Your task to perform on an android device: Open the calendar app, open the side menu, and click the "Day" option Image 0: 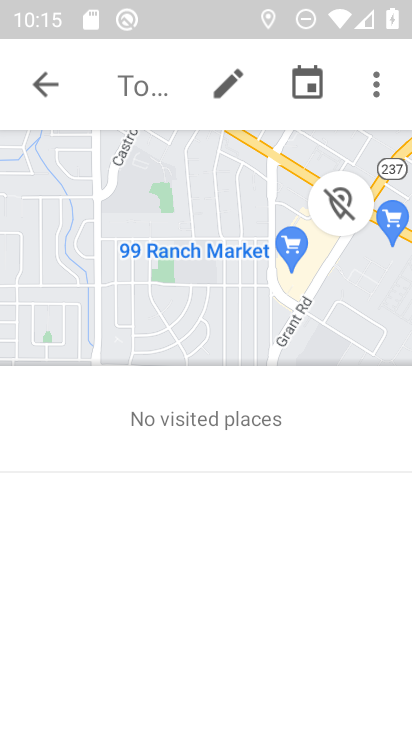
Step 0: press home button
Your task to perform on an android device: Open the calendar app, open the side menu, and click the "Day" option Image 1: 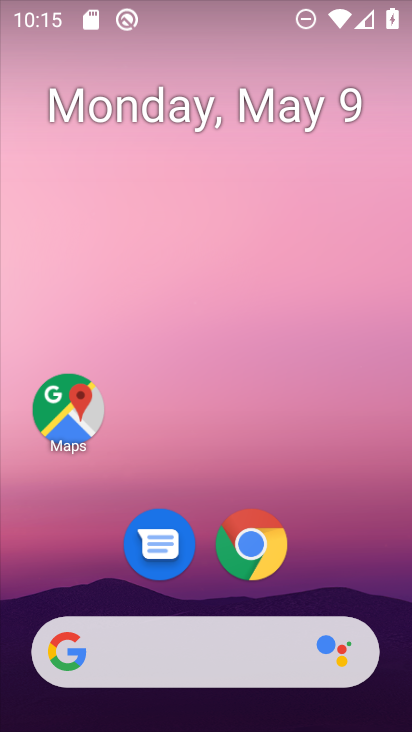
Step 1: drag from (347, 558) to (234, 95)
Your task to perform on an android device: Open the calendar app, open the side menu, and click the "Day" option Image 2: 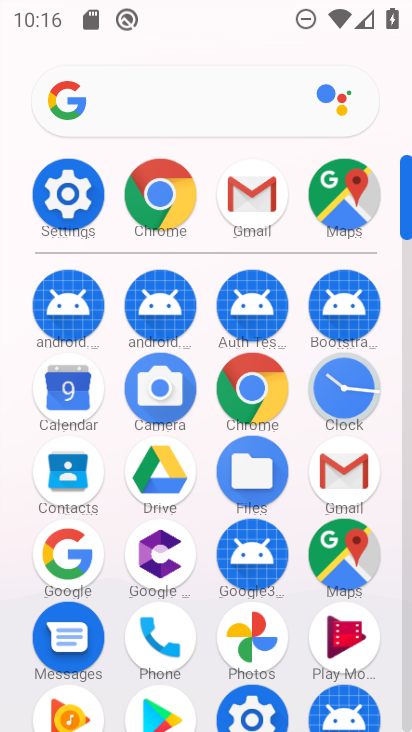
Step 2: click (67, 389)
Your task to perform on an android device: Open the calendar app, open the side menu, and click the "Day" option Image 3: 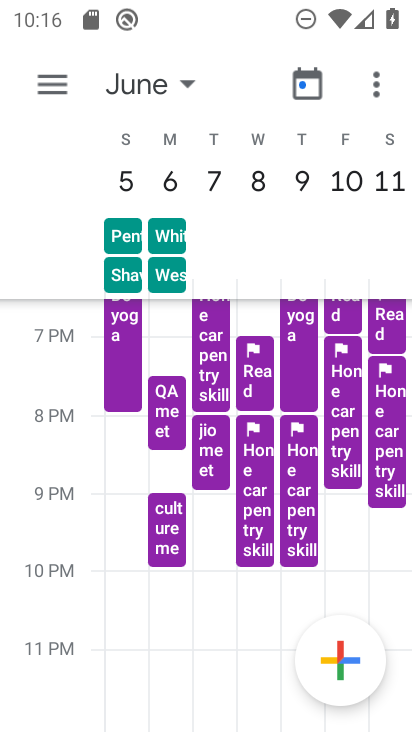
Step 3: click (55, 88)
Your task to perform on an android device: Open the calendar app, open the side menu, and click the "Day" option Image 4: 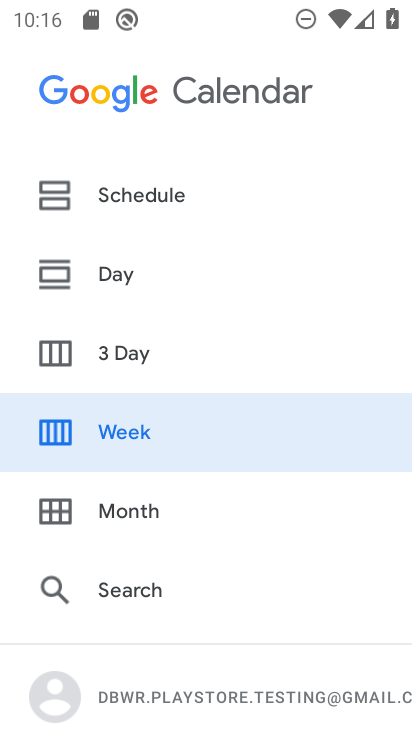
Step 4: click (110, 276)
Your task to perform on an android device: Open the calendar app, open the side menu, and click the "Day" option Image 5: 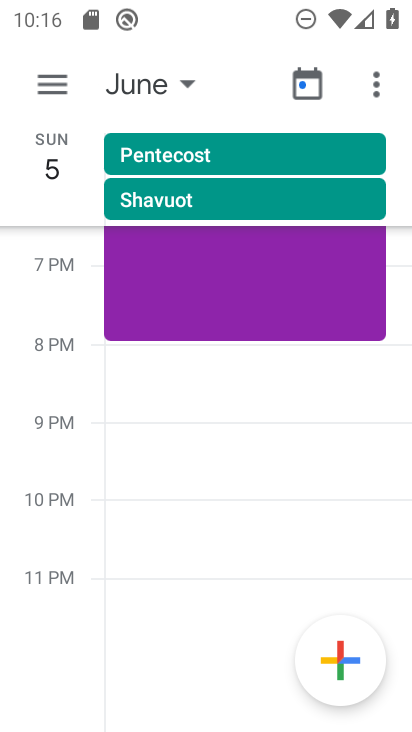
Step 5: task complete